Your task to perform on an android device: Is it going to rain this weekend? Image 0: 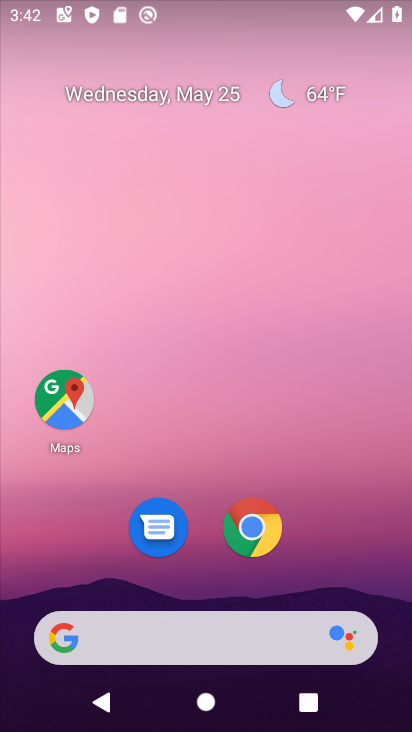
Step 0: click (287, 96)
Your task to perform on an android device: Is it going to rain this weekend? Image 1: 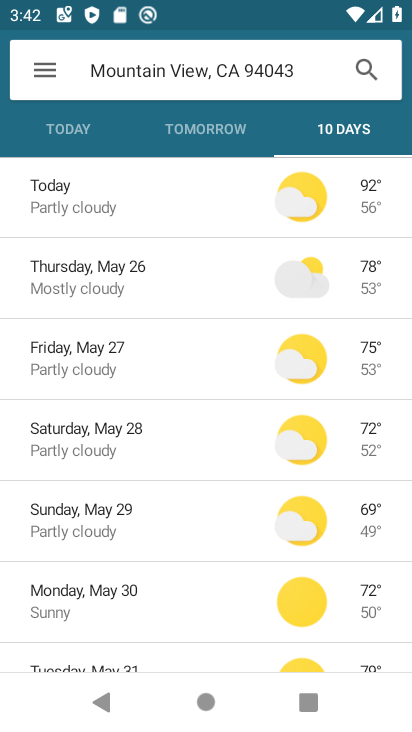
Step 1: task complete